Your task to perform on an android device: Go to notification settings Image 0: 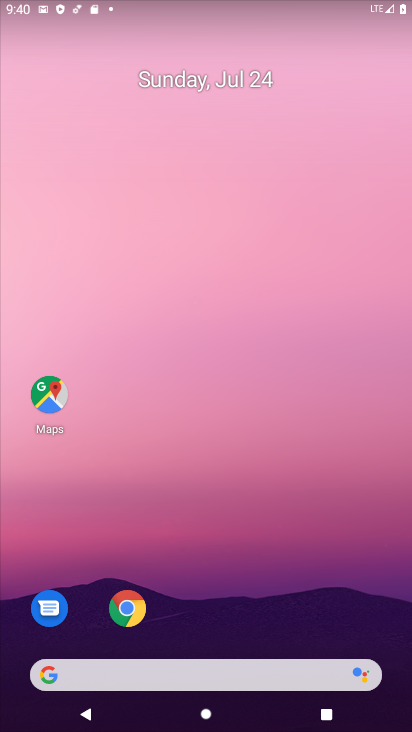
Step 0: press home button
Your task to perform on an android device: Go to notification settings Image 1: 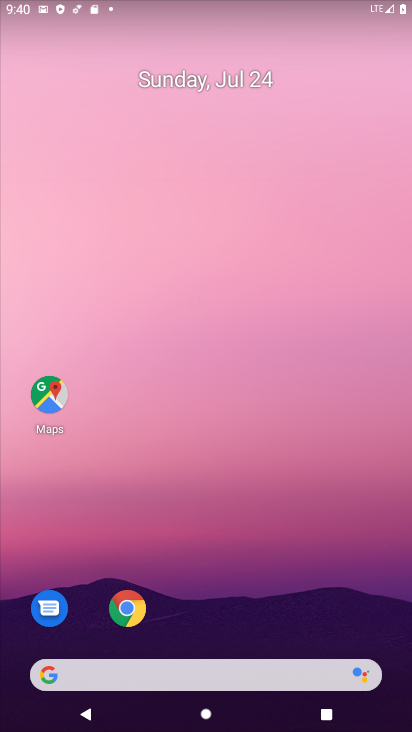
Step 1: drag from (211, 636) to (252, 46)
Your task to perform on an android device: Go to notification settings Image 2: 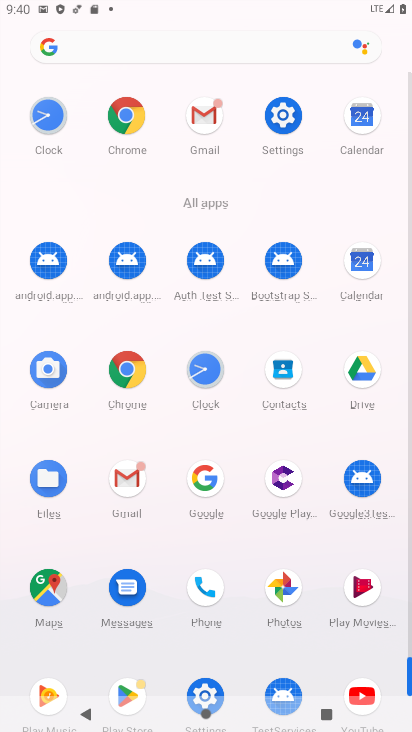
Step 2: click (281, 113)
Your task to perform on an android device: Go to notification settings Image 3: 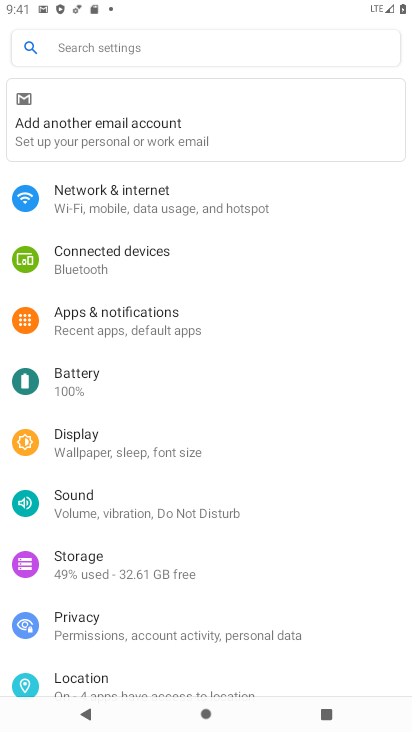
Step 3: click (207, 316)
Your task to perform on an android device: Go to notification settings Image 4: 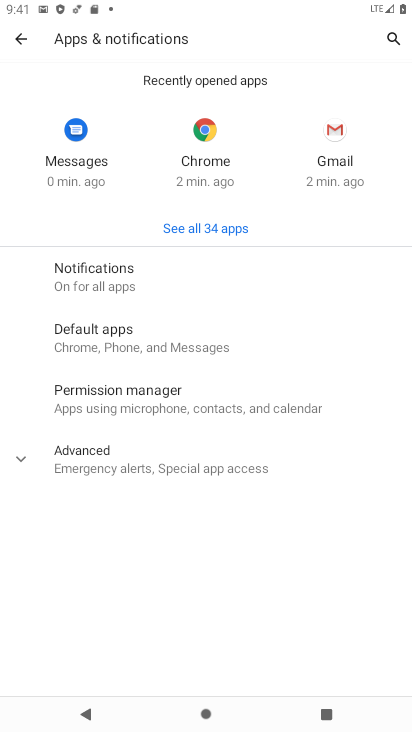
Step 4: click (146, 277)
Your task to perform on an android device: Go to notification settings Image 5: 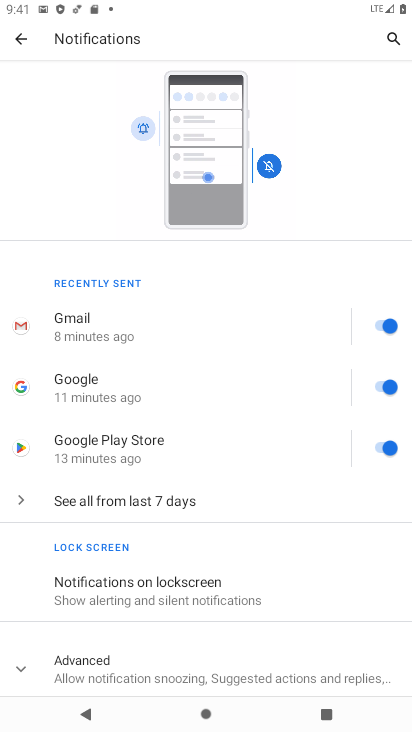
Step 5: click (17, 664)
Your task to perform on an android device: Go to notification settings Image 6: 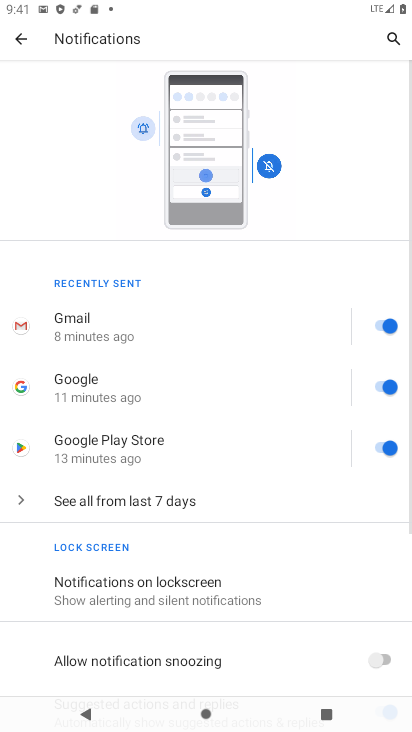
Step 6: task complete